Your task to perform on an android device: check google app version Image 0: 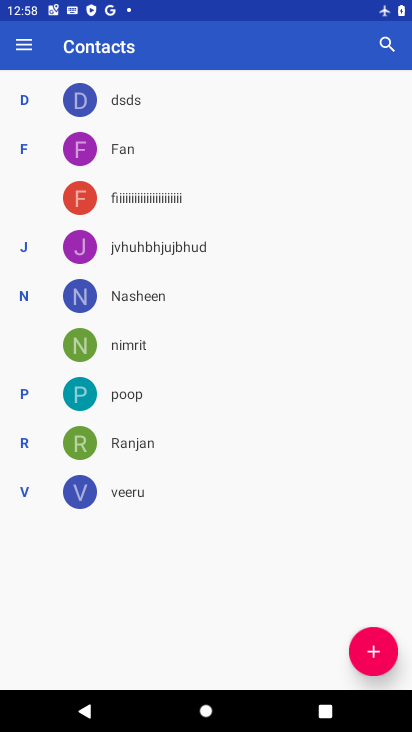
Step 0: press home button
Your task to perform on an android device: check google app version Image 1: 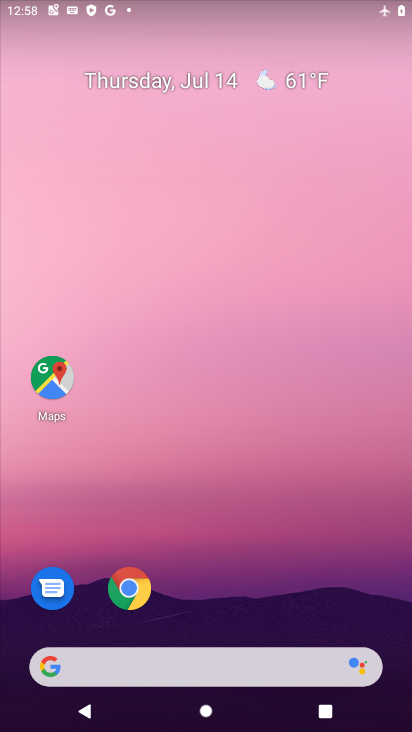
Step 1: click (54, 671)
Your task to perform on an android device: check google app version Image 2: 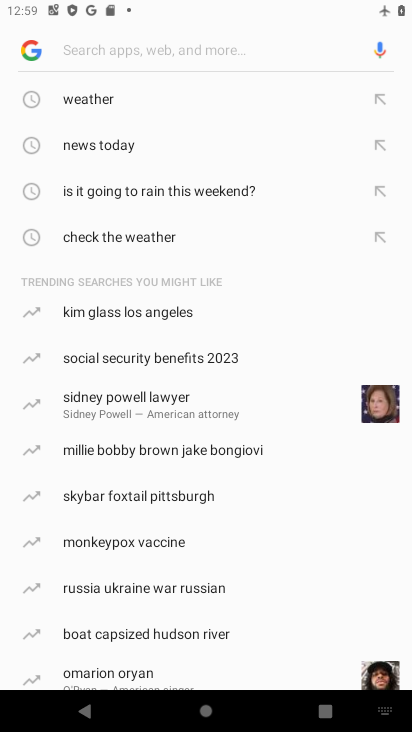
Step 2: click (31, 51)
Your task to perform on an android device: check google app version Image 3: 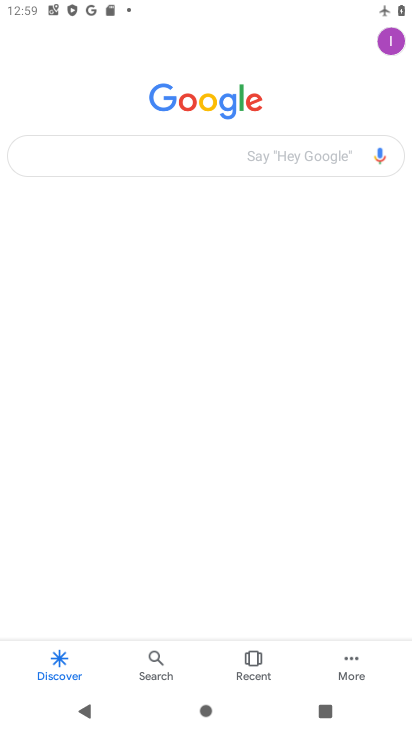
Step 3: click (352, 651)
Your task to perform on an android device: check google app version Image 4: 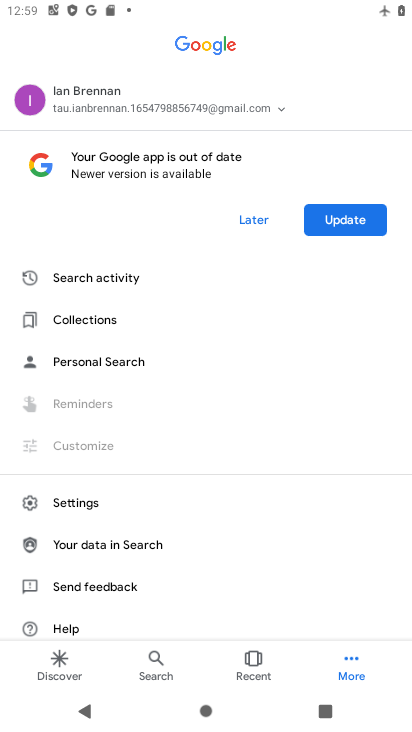
Step 4: click (71, 495)
Your task to perform on an android device: check google app version Image 5: 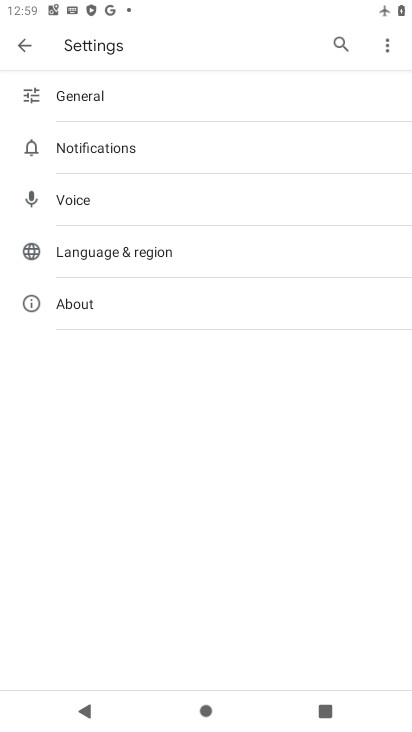
Step 5: click (97, 306)
Your task to perform on an android device: check google app version Image 6: 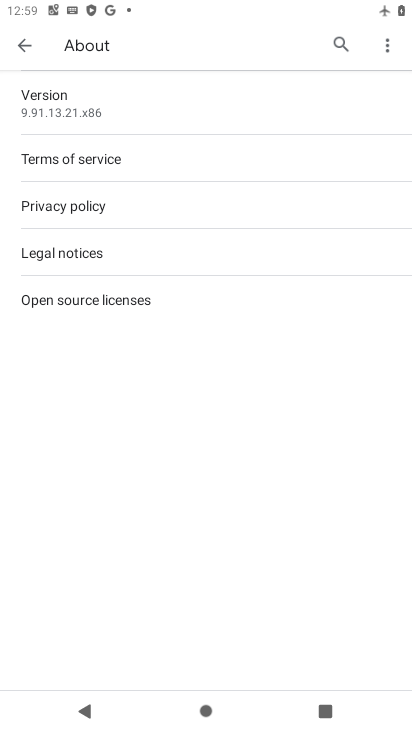
Step 6: task complete